Your task to perform on an android device: Open Google Image 0: 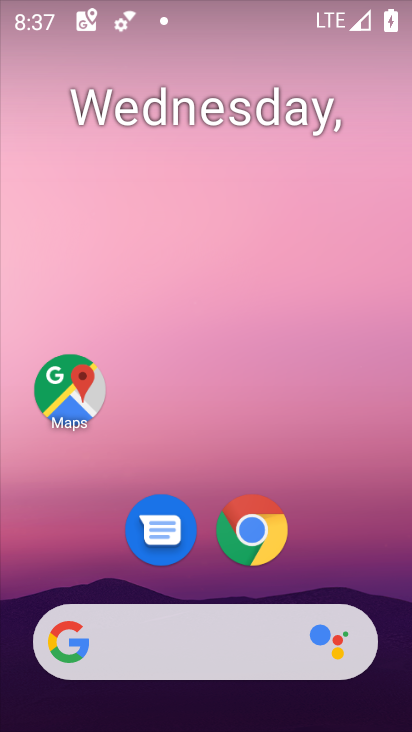
Step 0: drag from (397, 633) to (295, 92)
Your task to perform on an android device: Open Google Image 1: 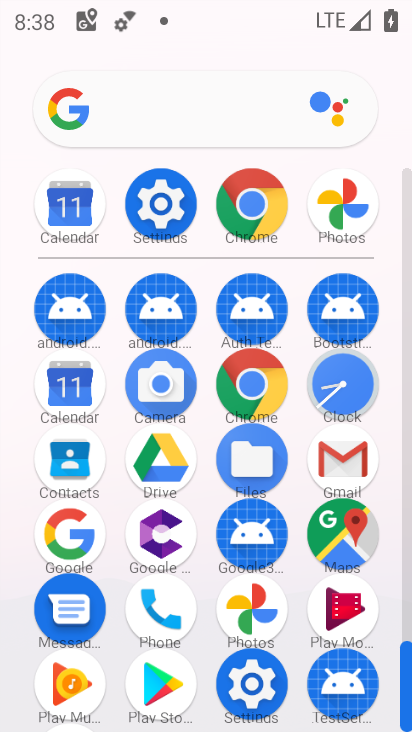
Step 1: click (104, 526)
Your task to perform on an android device: Open Google Image 2: 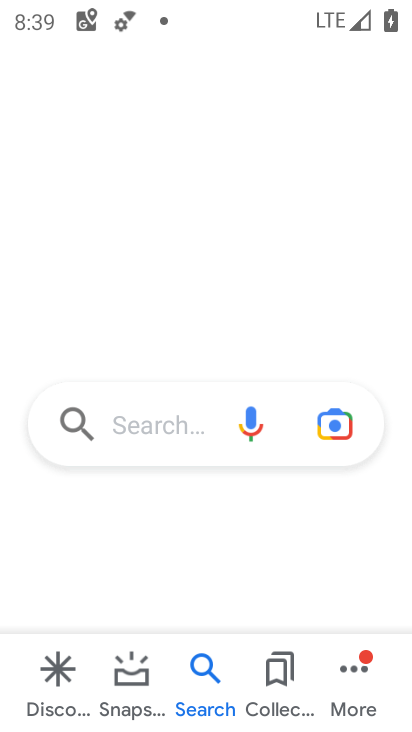
Step 2: task complete